Your task to perform on an android device: Search for Mexican restaurants on Maps Image 0: 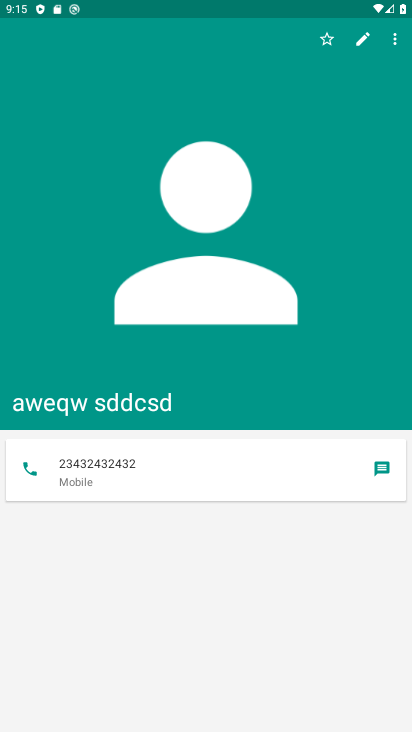
Step 0: press home button
Your task to perform on an android device: Search for Mexican restaurants on Maps Image 1: 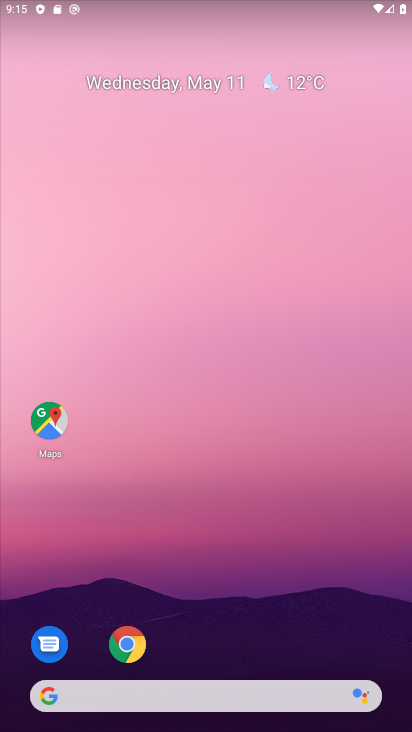
Step 1: drag from (251, 571) to (236, 66)
Your task to perform on an android device: Search for Mexican restaurants on Maps Image 2: 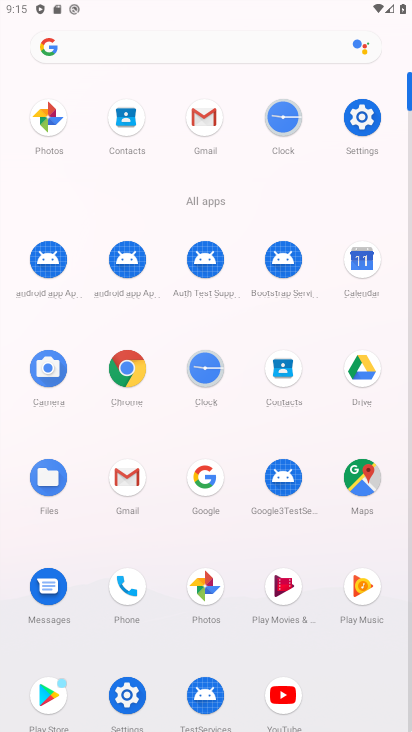
Step 2: click (371, 488)
Your task to perform on an android device: Search for Mexican restaurants on Maps Image 3: 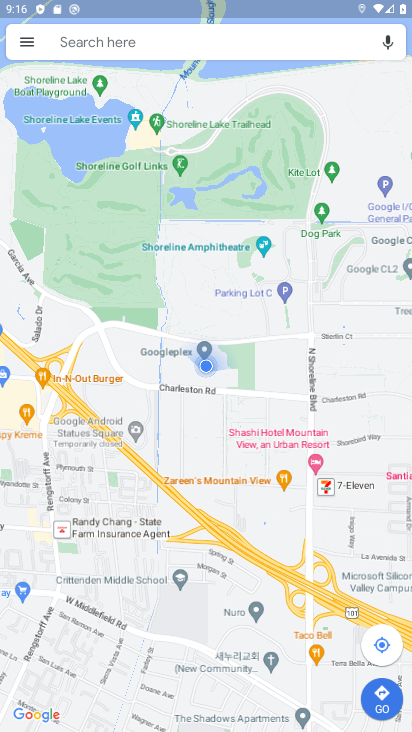
Step 3: click (275, 44)
Your task to perform on an android device: Search for Mexican restaurants on Maps Image 4: 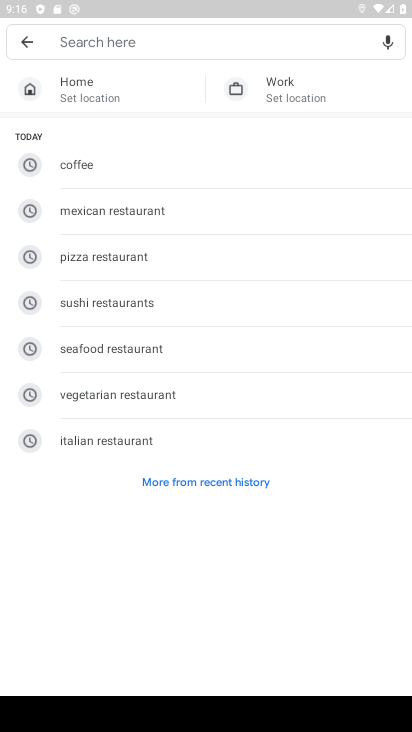
Step 4: click (220, 217)
Your task to perform on an android device: Search for Mexican restaurants on Maps Image 5: 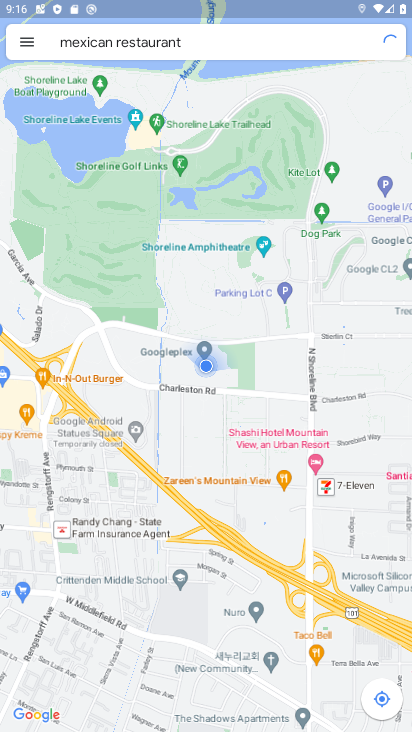
Step 5: task complete